Your task to perform on an android device: Open the web browser Image 0: 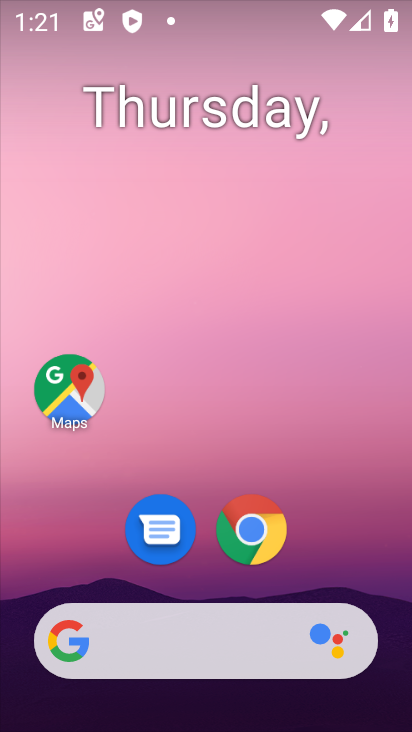
Step 0: drag from (343, 546) to (357, 173)
Your task to perform on an android device: Open the web browser Image 1: 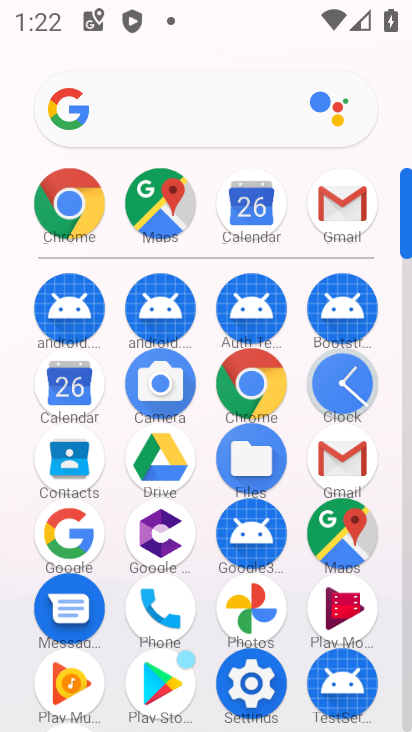
Step 1: click (270, 397)
Your task to perform on an android device: Open the web browser Image 2: 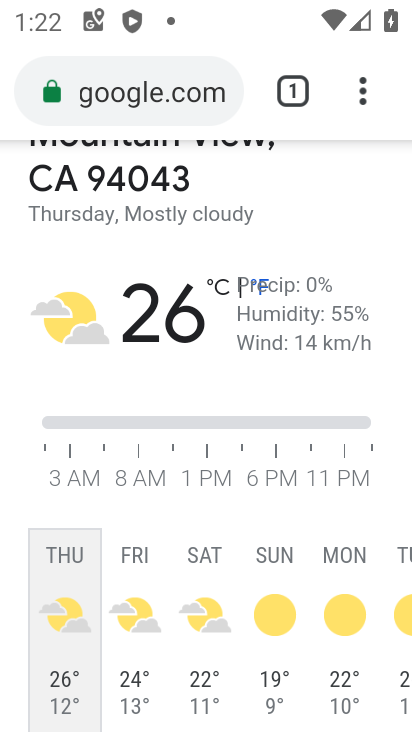
Step 2: task complete